Your task to perform on an android device: choose inbox layout in the gmail app Image 0: 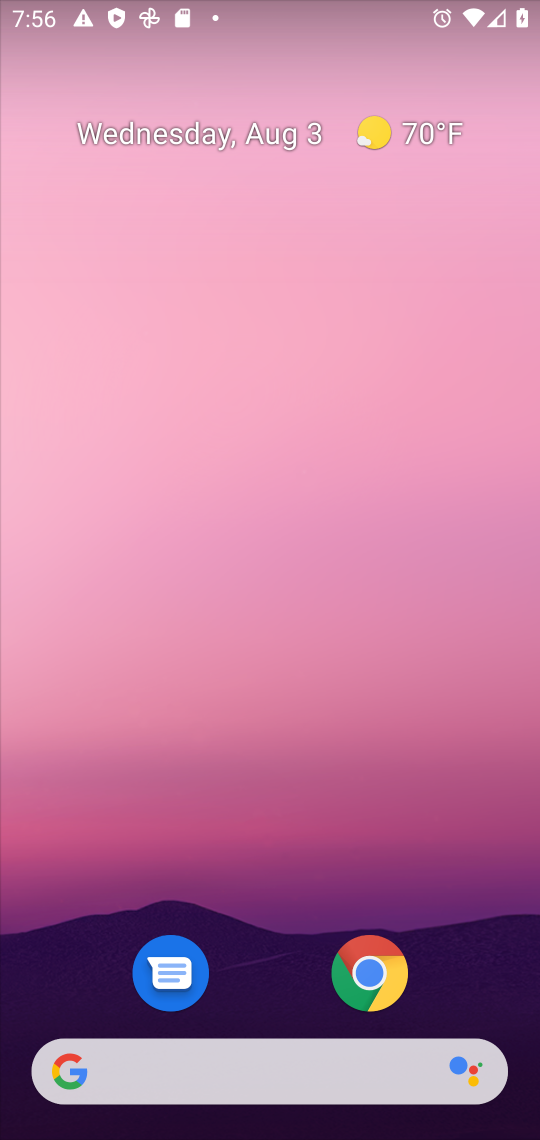
Step 0: drag from (262, 975) to (193, 209)
Your task to perform on an android device: choose inbox layout in the gmail app Image 1: 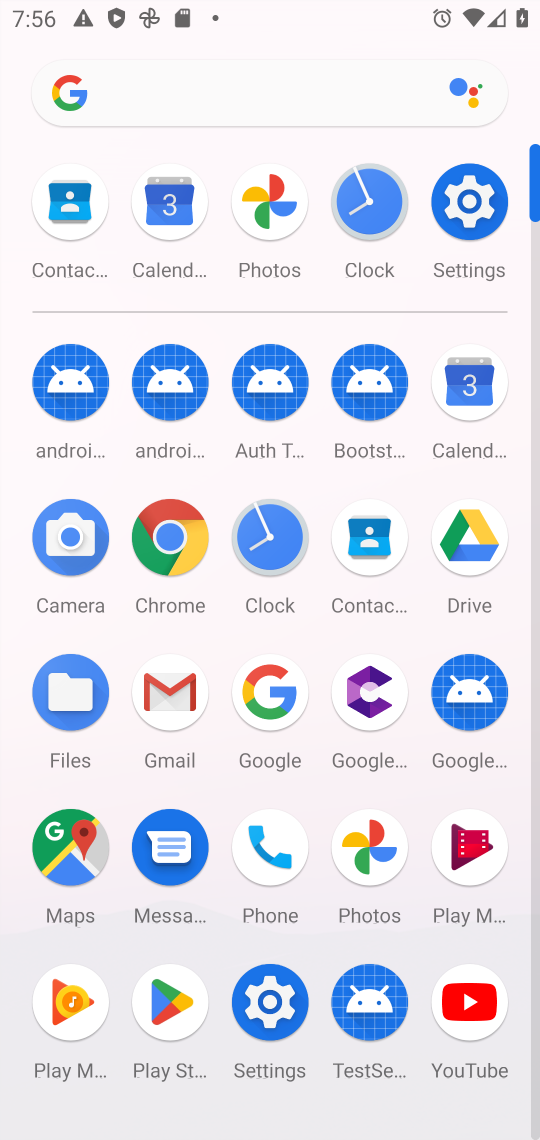
Step 1: click (180, 695)
Your task to perform on an android device: choose inbox layout in the gmail app Image 2: 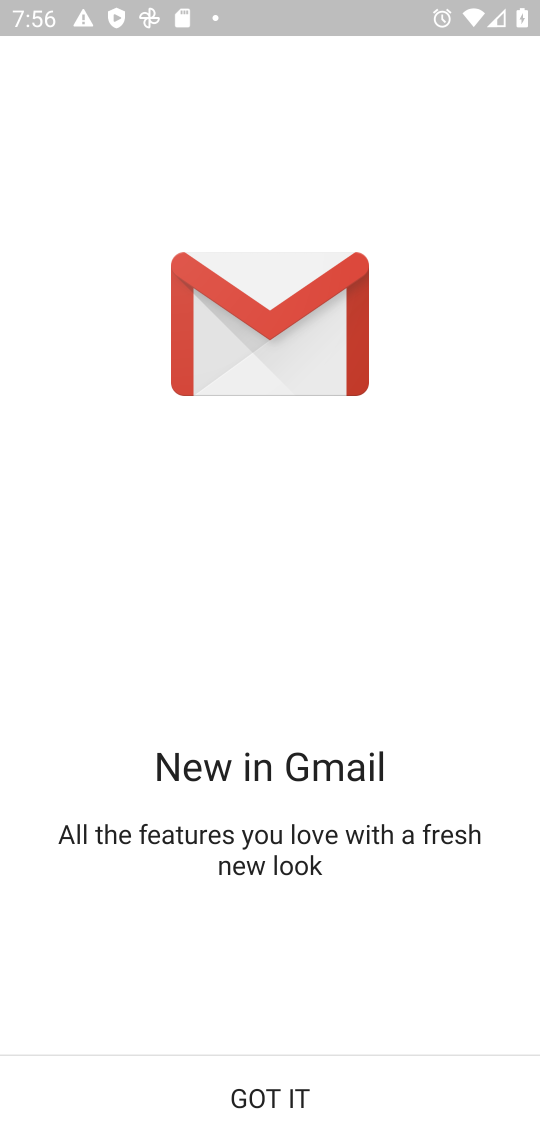
Step 2: click (238, 1094)
Your task to perform on an android device: choose inbox layout in the gmail app Image 3: 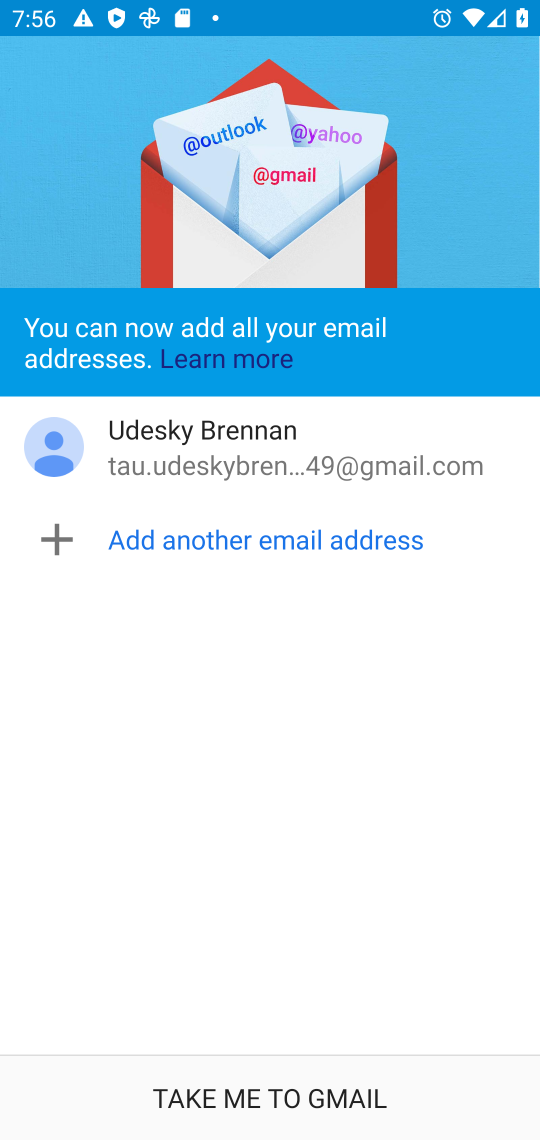
Step 3: click (238, 1094)
Your task to perform on an android device: choose inbox layout in the gmail app Image 4: 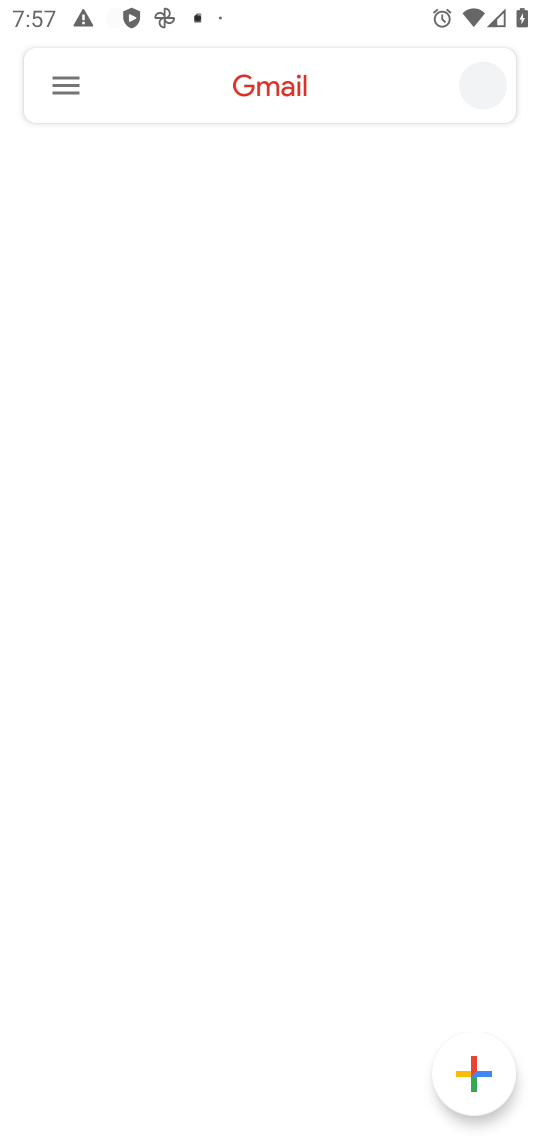
Step 4: click (238, 1094)
Your task to perform on an android device: choose inbox layout in the gmail app Image 5: 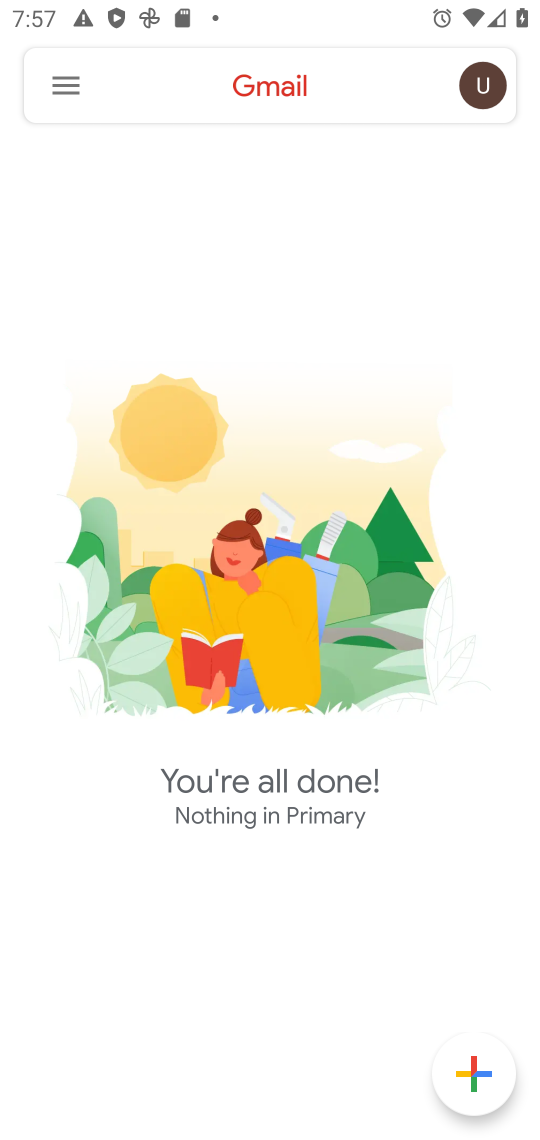
Step 5: click (58, 75)
Your task to perform on an android device: choose inbox layout in the gmail app Image 6: 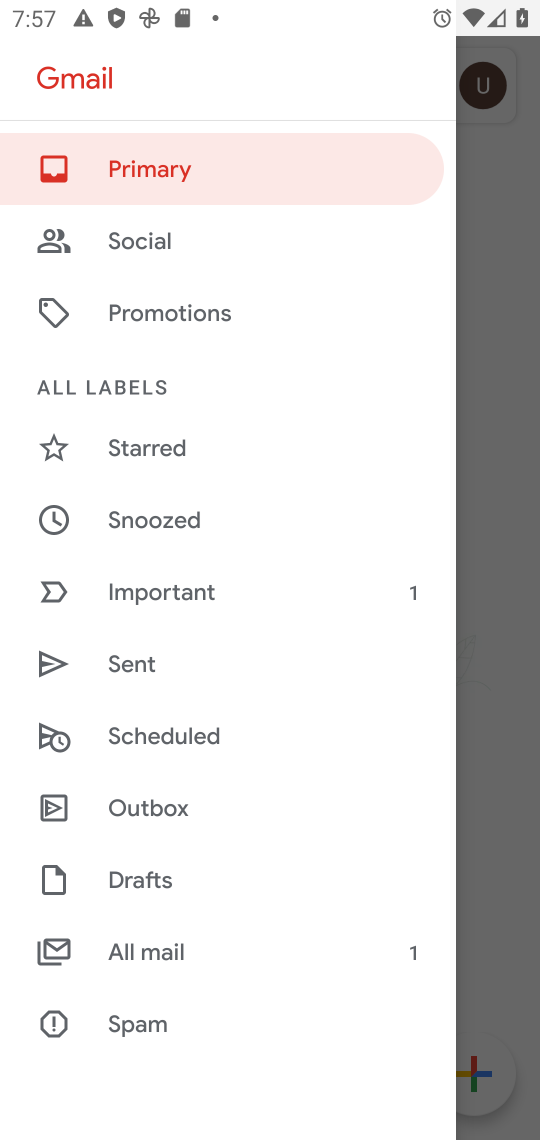
Step 6: drag from (242, 990) to (249, 319)
Your task to perform on an android device: choose inbox layout in the gmail app Image 7: 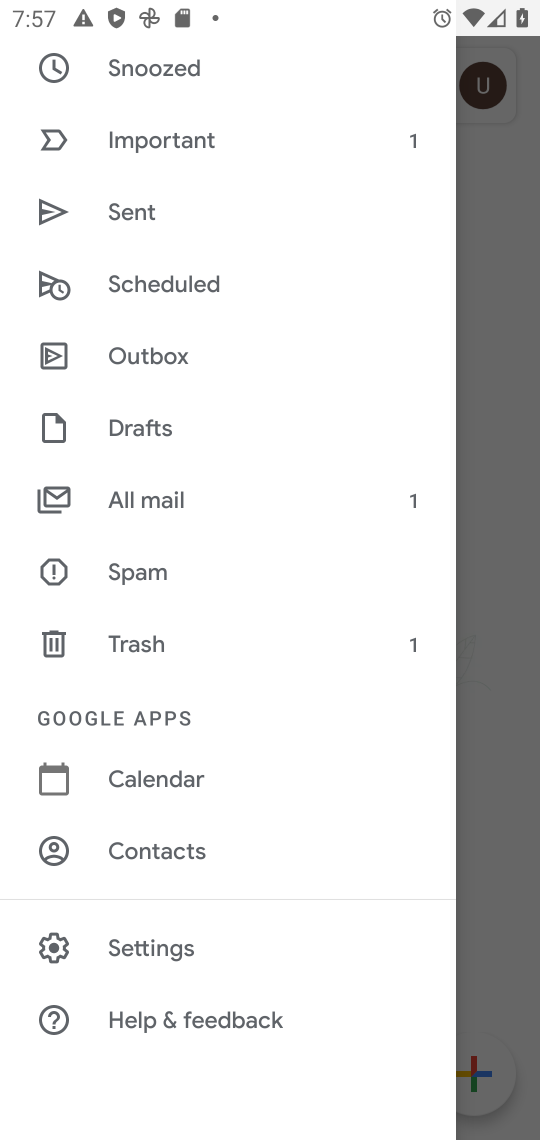
Step 7: click (152, 946)
Your task to perform on an android device: choose inbox layout in the gmail app Image 8: 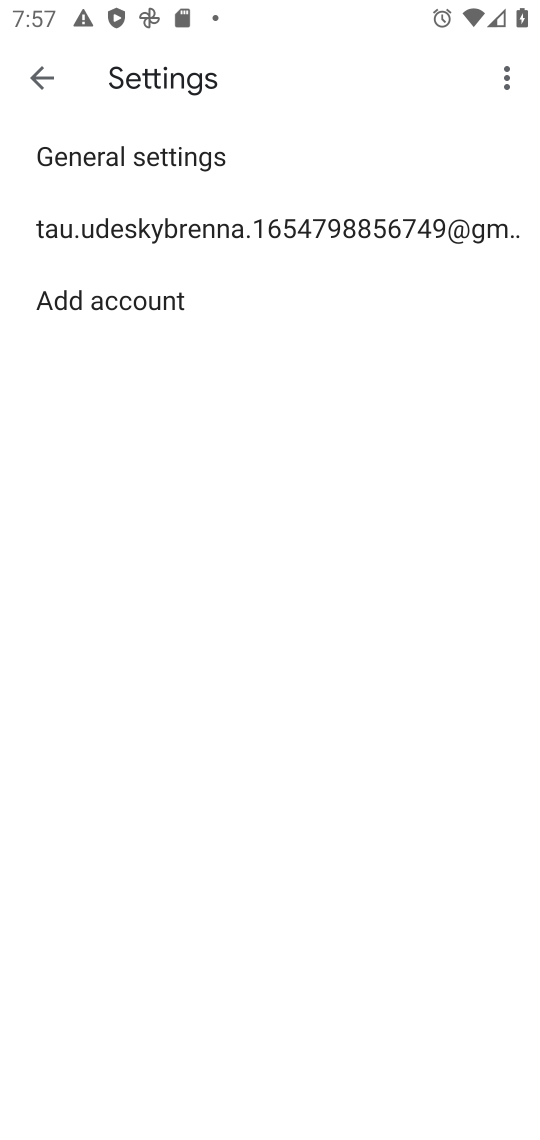
Step 8: click (290, 224)
Your task to perform on an android device: choose inbox layout in the gmail app Image 9: 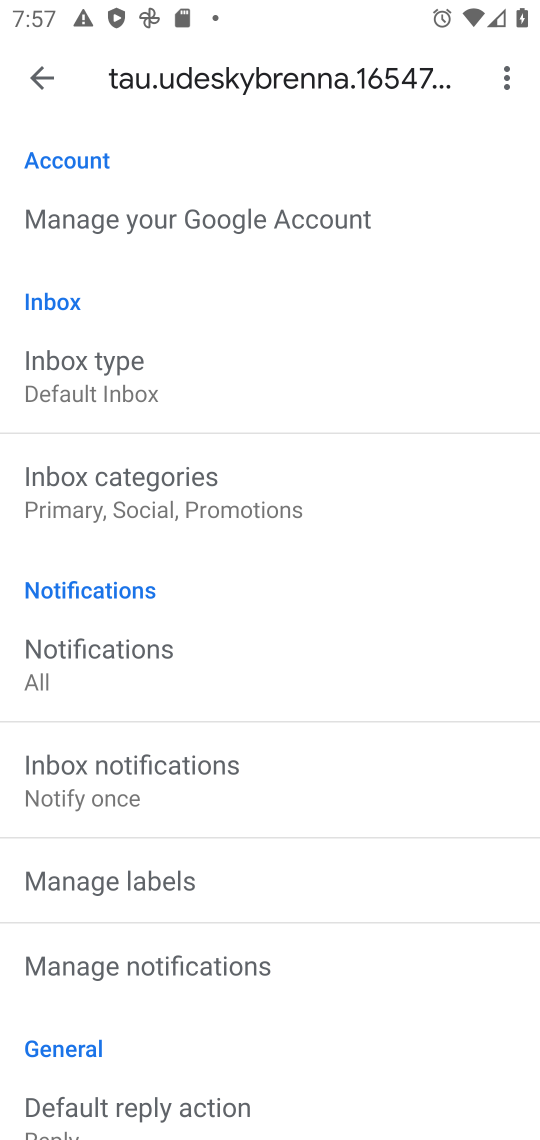
Step 9: click (65, 398)
Your task to perform on an android device: choose inbox layout in the gmail app Image 10: 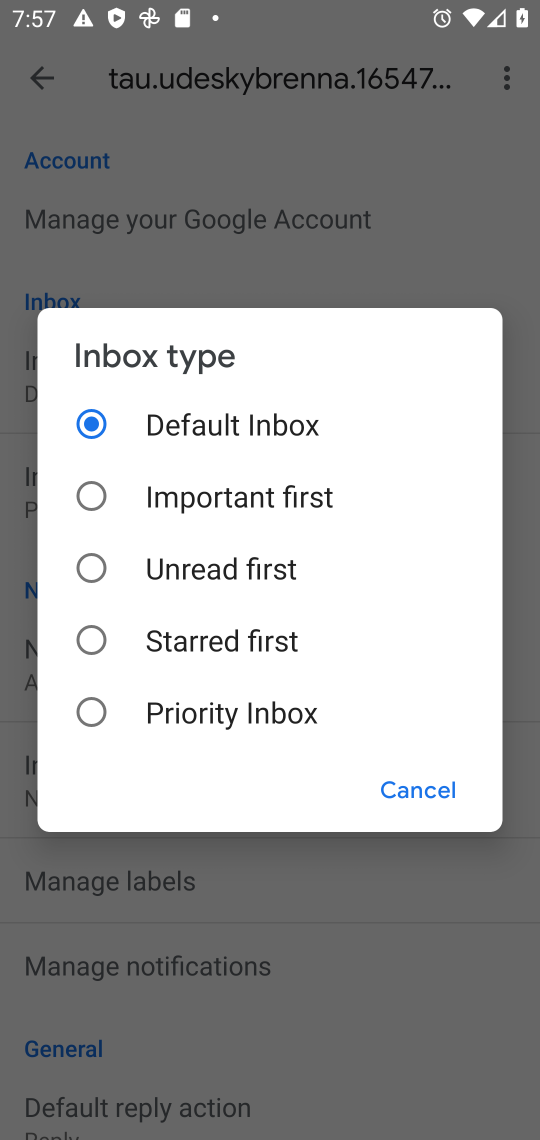
Step 10: click (85, 712)
Your task to perform on an android device: choose inbox layout in the gmail app Image 11: 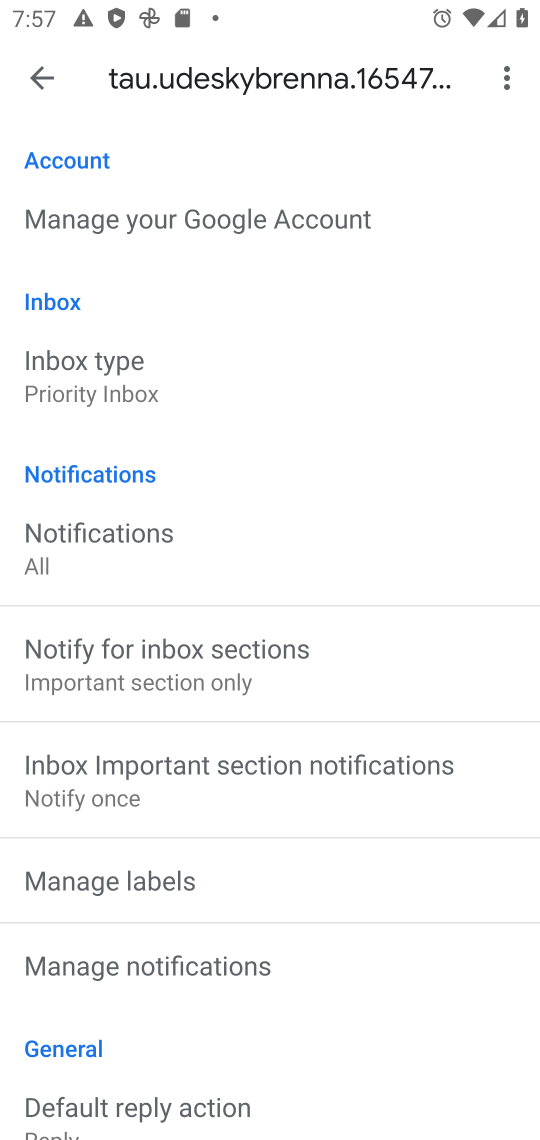
Step 11: task complete